Your task to perform on an android device: Do I have any events today? Image 0: 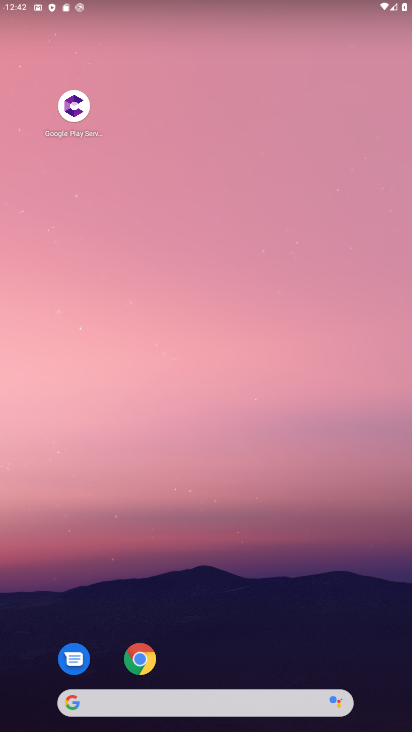
Step 0: drag from (199, 652) to (214, 160)
Your task to perform on an android device: Do I have any events today? Image 1: 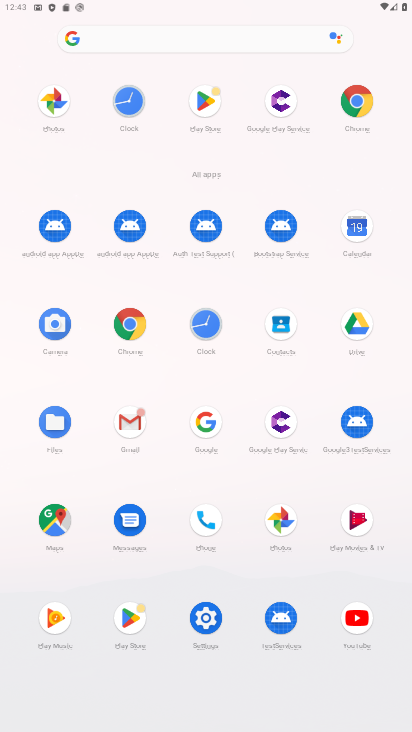
Step 1: click (363, 221)
Your task to perform on an android device: Do I have any events today? Image 2: 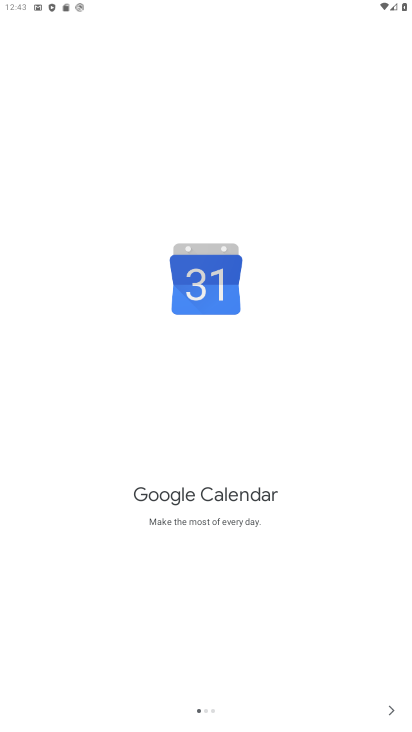
Step 2: click (391, 702)
Your task to perform on an android device: Do I have any events today? Image 3: 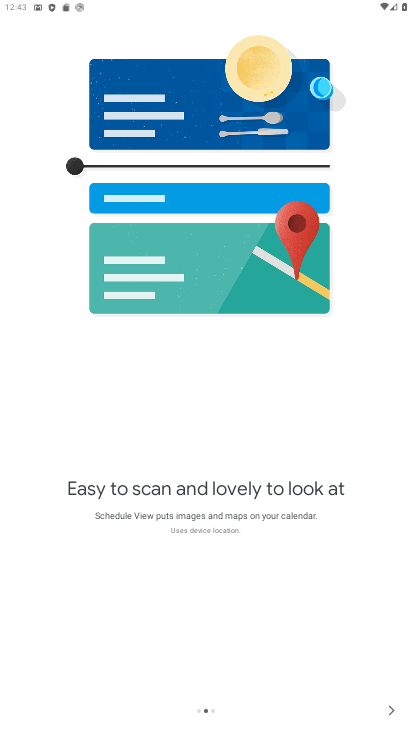
Step 3: click (389, 700)
Your task to perform on an android device: Do I have any events today? Image 4: 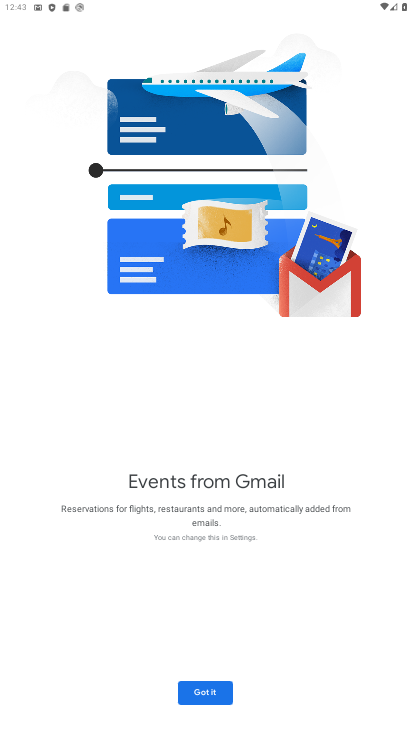
Step 4: click (214, 701)
Your task to perform on an android device: Do I have any events today? Image 5: 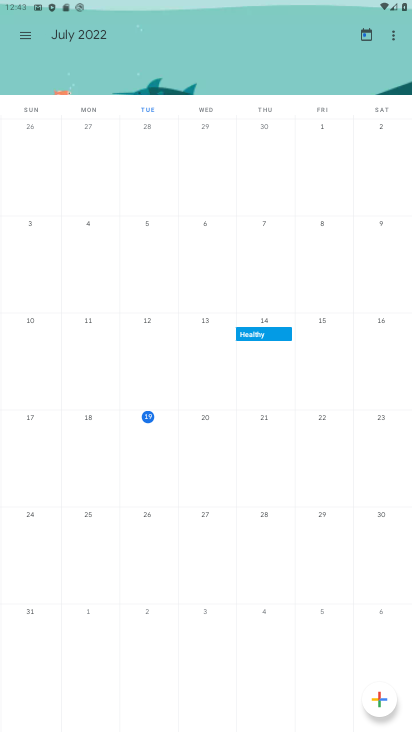
Step 5: click (19, 24)
Your task to perform on an android device: Do I have any events today? Image 6: 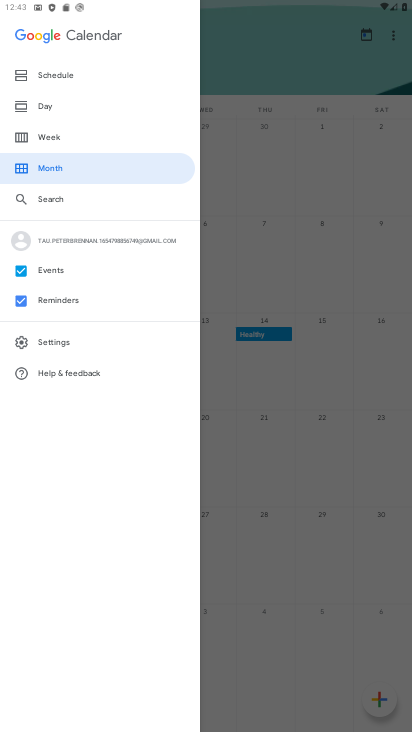
Step 6: click (45, 303)
Your task to perform on an android device: Do I have any events today? Image 7: 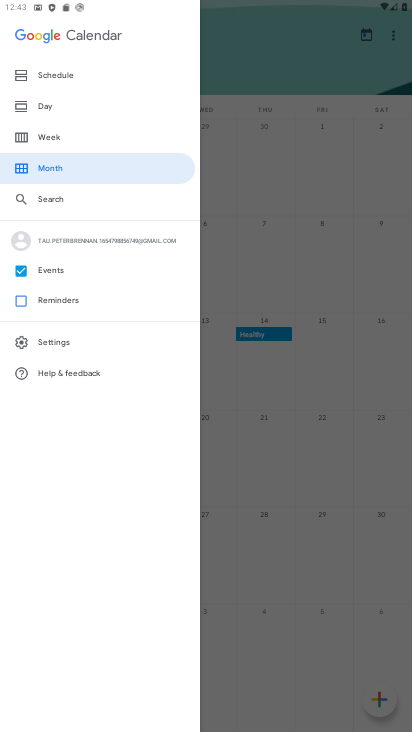
Step 7: click (51, 107)
Your task to perform on an android device: Do I have any events today? Image 8: 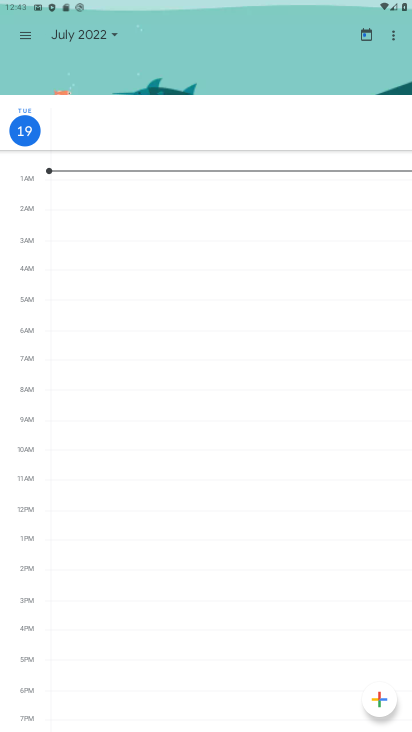
Step 8: task complete